Your task to perform on an android device: Open my contact list Image 0: 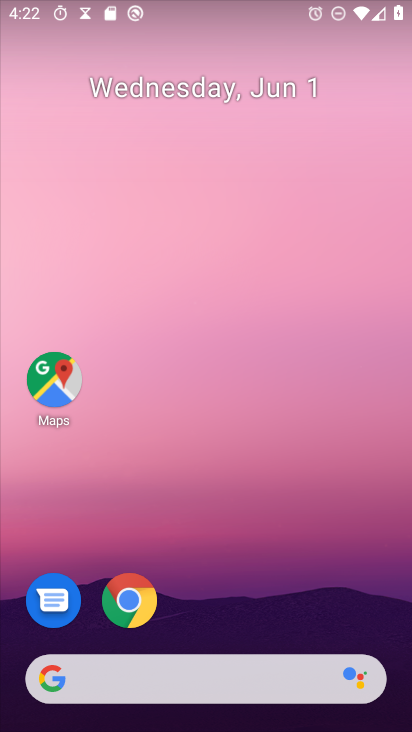
Step 0: drag from (213, 618) to (210, 23)
Your task to perform on an android device: Open my contact list Image 1: 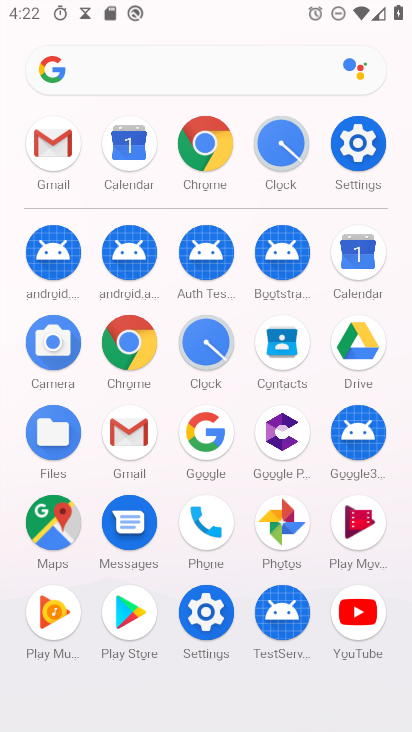
Step 1: click (275, 367)
Your task to perform on an android device: Open my contact list Image 2: 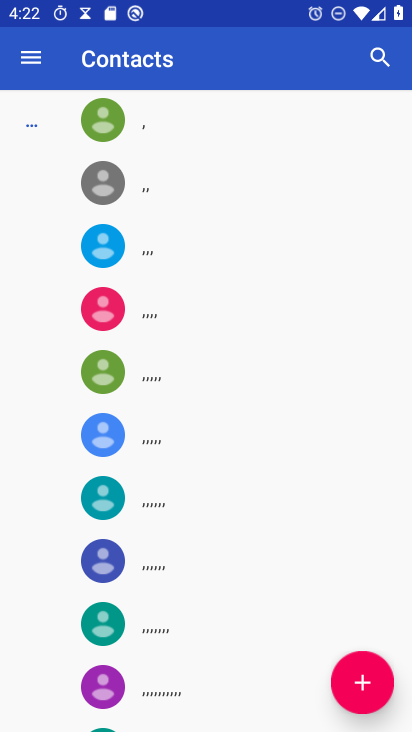
Step 2: task complete